Your task to perform on an android device: Go to eBay Image 0: 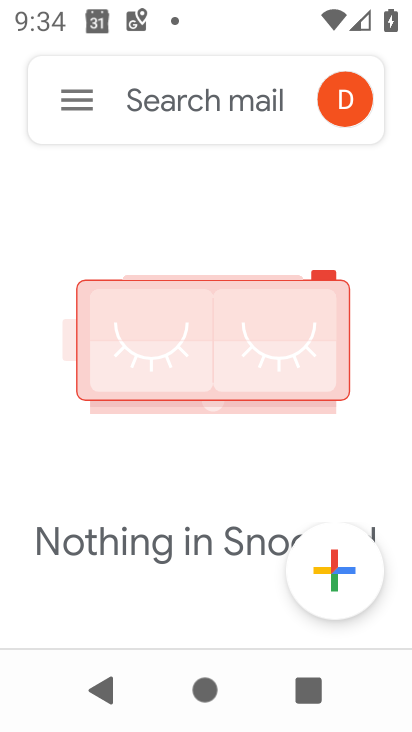
Step 0: press home button
Your task to perform on an android device: Go to eBay Image 1: 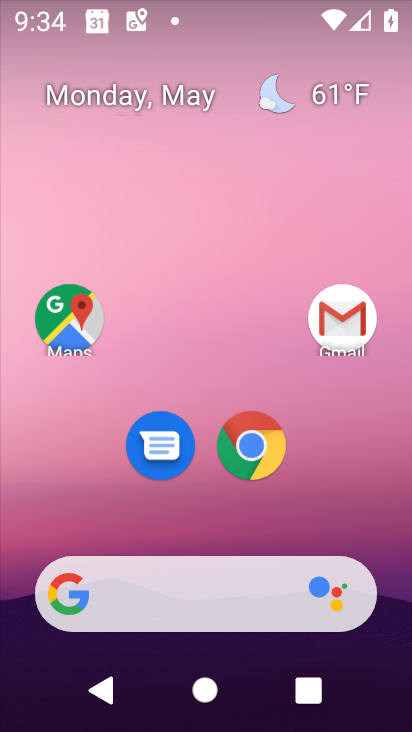
Step 1: drag from (372, 522) to (367, 145)
Your task to perform on an android device: Go to eBay Image 2: 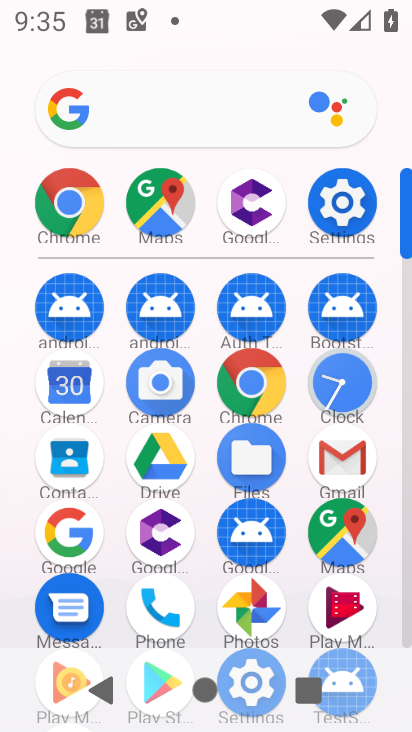
Step 2: click (255, 402)
Your task to perform on an android device: Go to eBay Image 3: 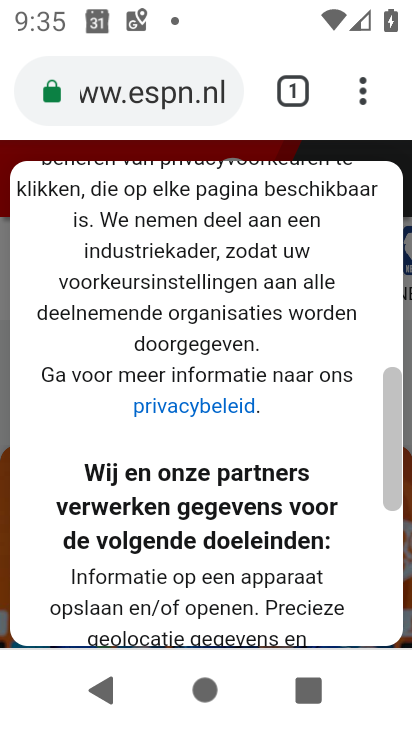
Step 3: click (160, 102)
Your task to perform on an android device: Go to eBay Image 4: 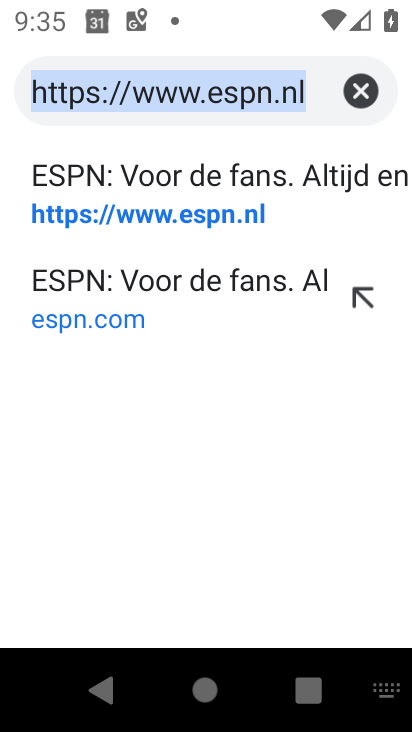
Step 4: click (357, 95)
Your task to perform on an android device: Go to eBay Image 5: 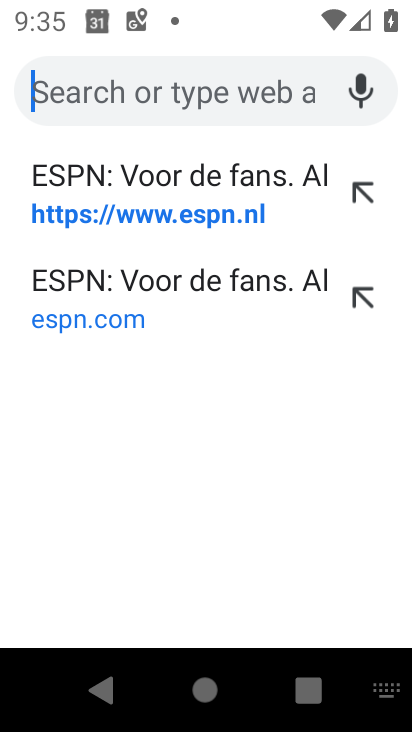
Step 5: type "ebay"
Your task to perform on an android device: Go to eBay Image 6: 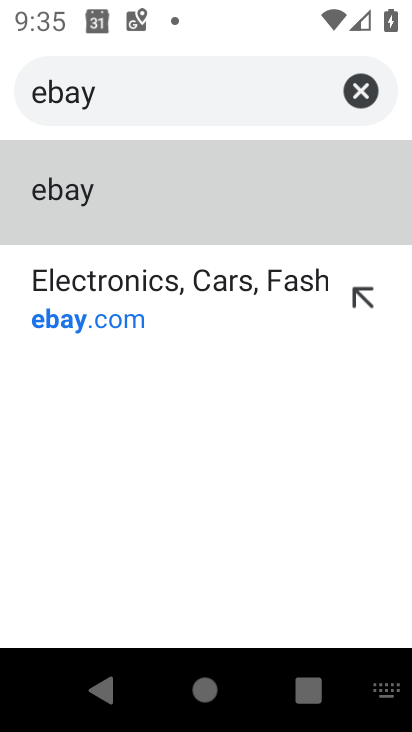
Step 6: click (247, 291)
Your task to perform on an android device: Go to eBay Image 7: 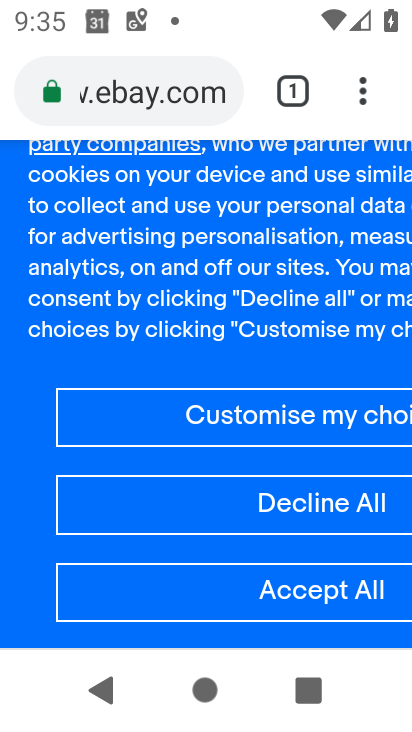
Step 7: task complete